Your task to perform on an android device: Go to accessibility settings Image 0: 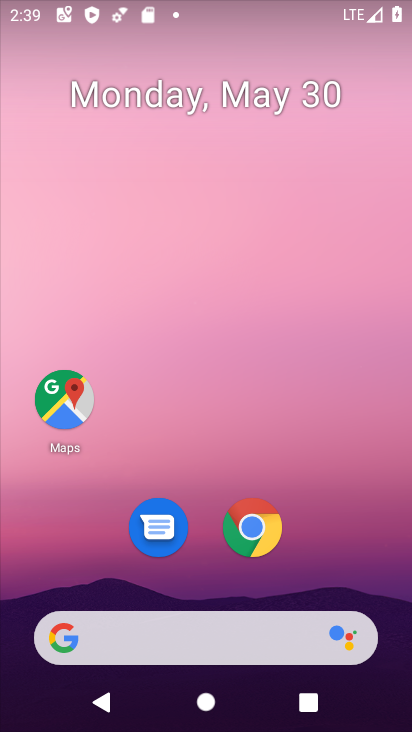
Step 0: drag from (317, 539) to (301, 37)
Your task to perform on an android device: Go to accessibility settings Image 1: 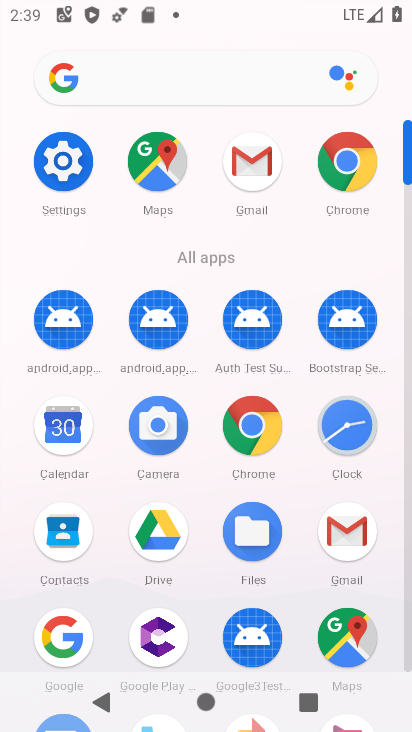
Step 1: click (62, 155)
Your task to perform on an android device: Go to accessibility settings Image 2: 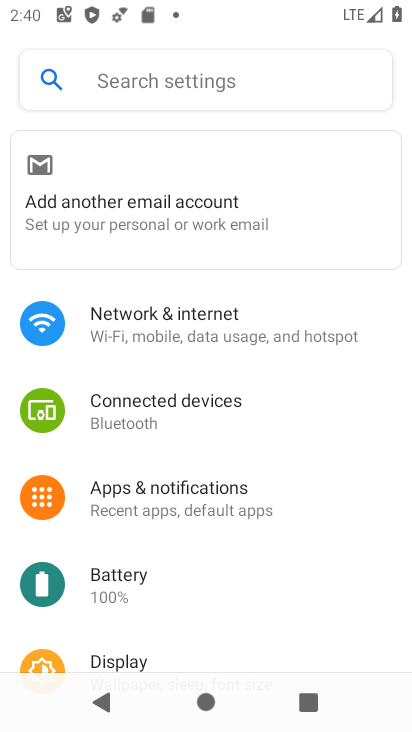
Step 2: drag from (303, 574) to (329, 67)
Your task to perform on an android device: Go to accessibility settings Image 3: 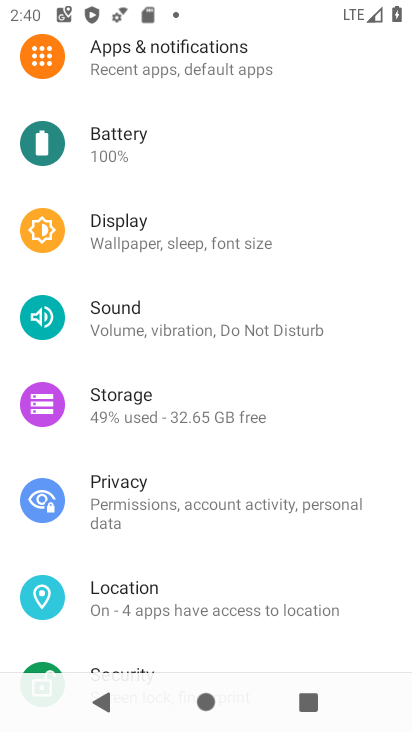
Step 3: drag from (306, 631) to (328, 189)
Your task to perform on an android device: Go to accessibility settings Image 4: 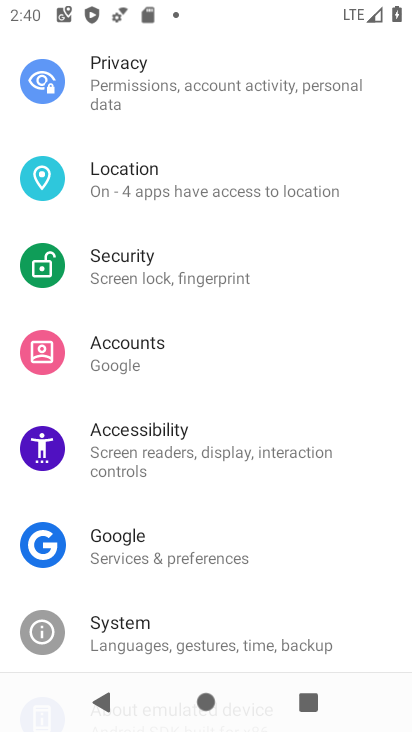
Step 4: click (157, 438)
Your task to perform on an android device: Go to accessibility settings Image 5: 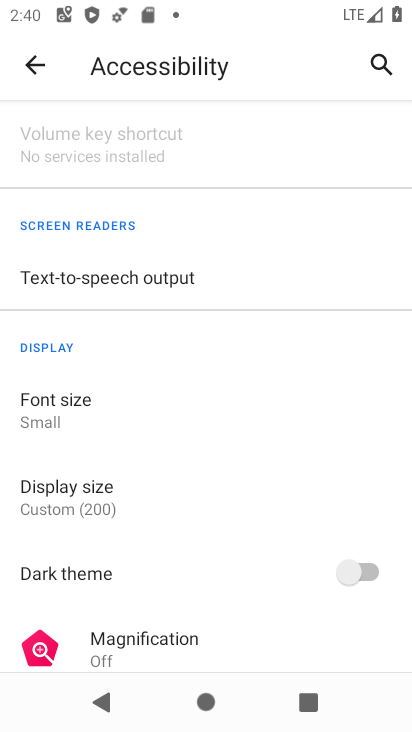
Step 5: task complete